Your task to perform on an android device: Open eBay Image 0: 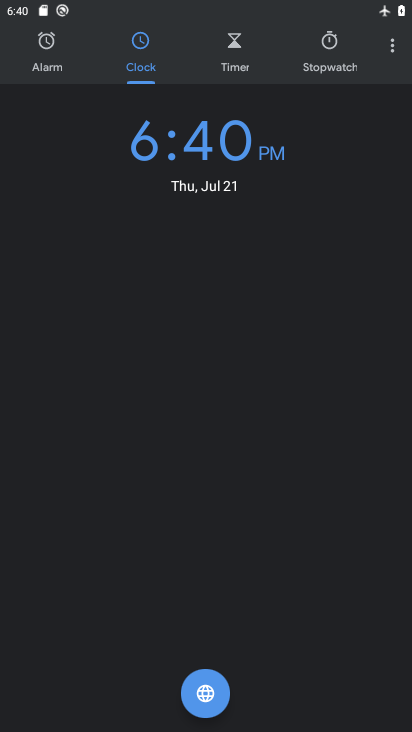
Step 0: press home button
Your task to perform on an android device: Open eBay Image 1: 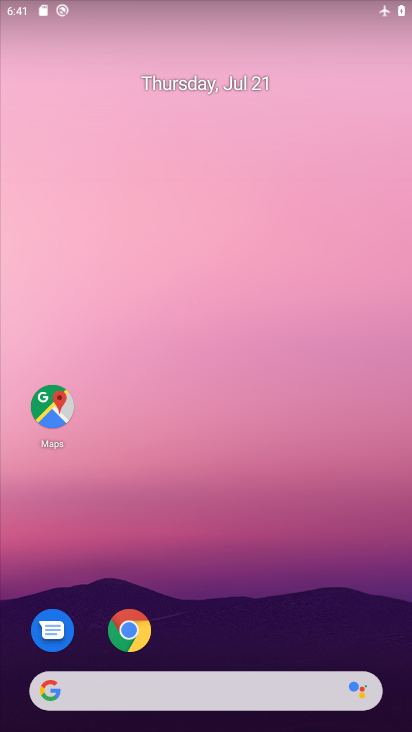
Step 1: click (128, 627)
Your task to perform on an android device: Open eBay Image 2: 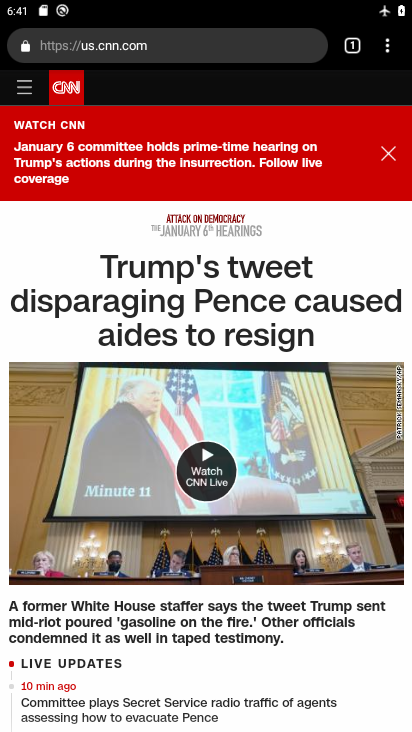
Step 2: click (219, 39)
Your task to perform on an android device: Open eBay Image 3: 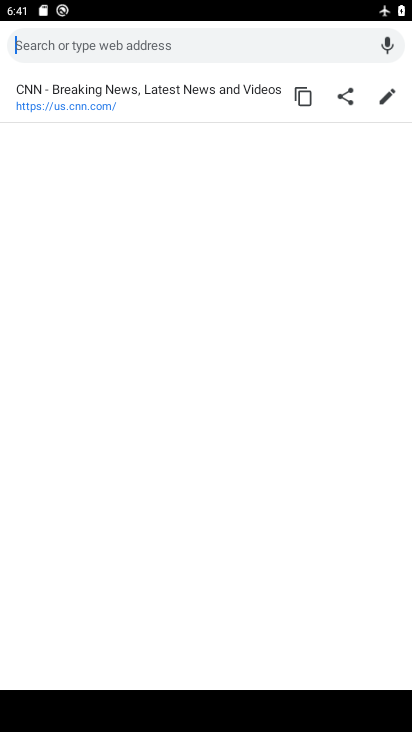
Step 3: type "eBay"
Your task to perform on an android device: Open eBay Image 4: 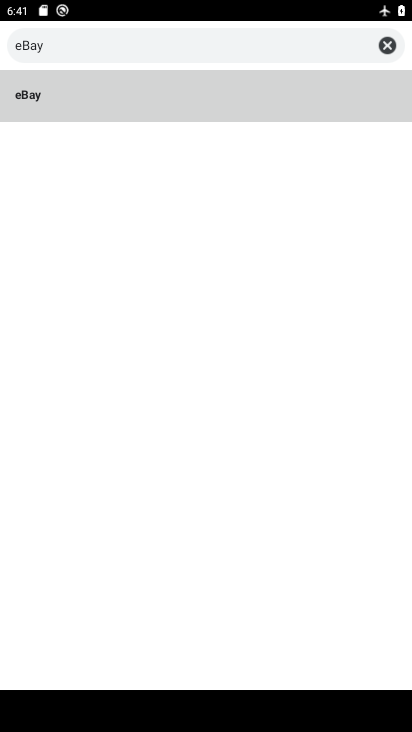
Step 4: click (74, 111)
Your task to perform on an android device: Open eBay Image 5: 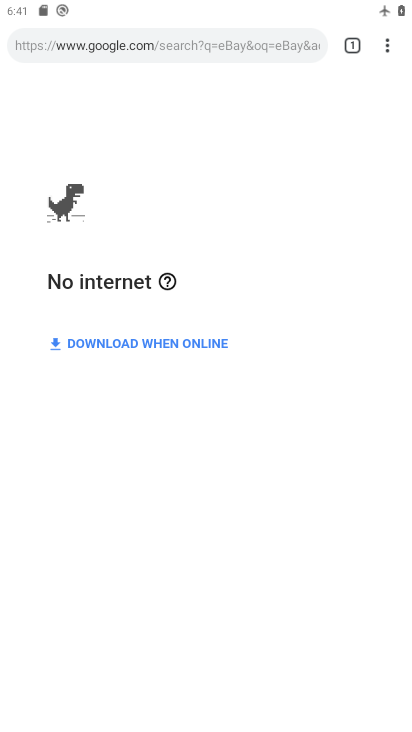
Step 5: task complete